Your task to perform on an android device: allow notifications from all sites in the chrome app Image 0: 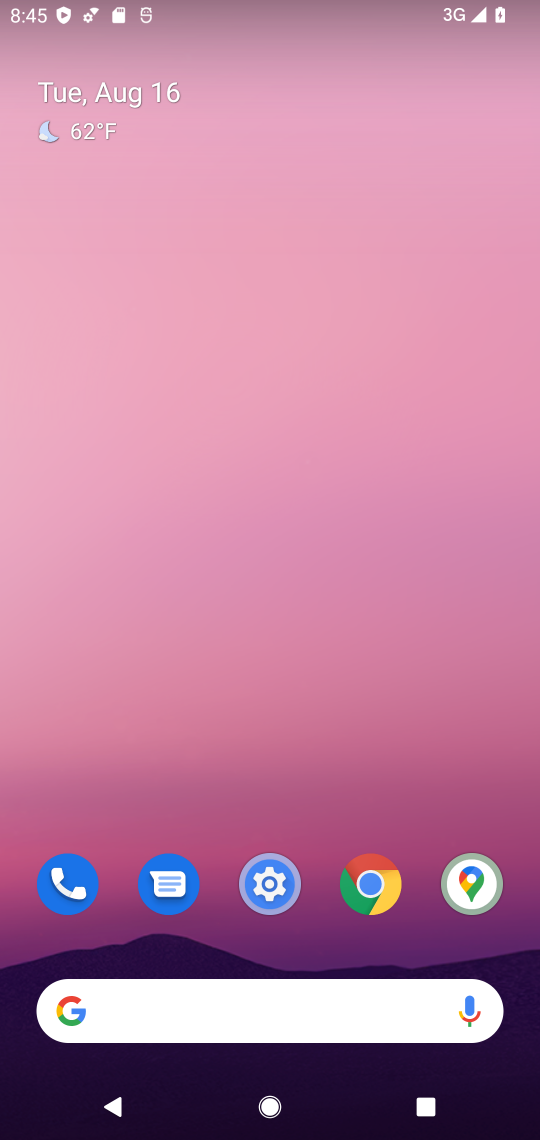
Step 0: click (365, 889)
Your task to perform on an android device: allow notifications from all sites in the chrome app Image 1: 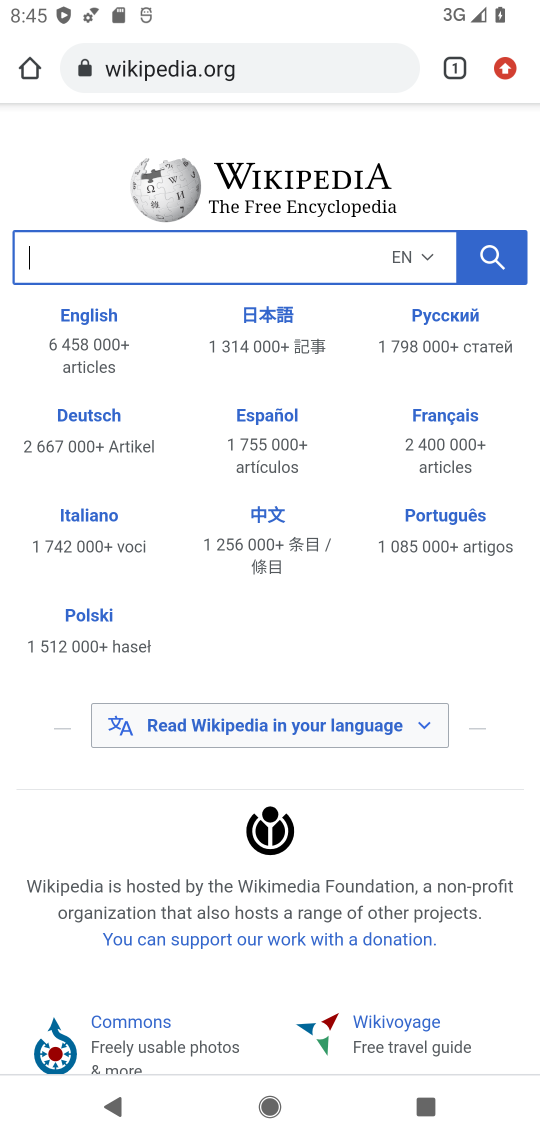
Step 1: click (495, 70)
Your task to perform on an android device: allow notifications from all sites in the chrome app Image 2: 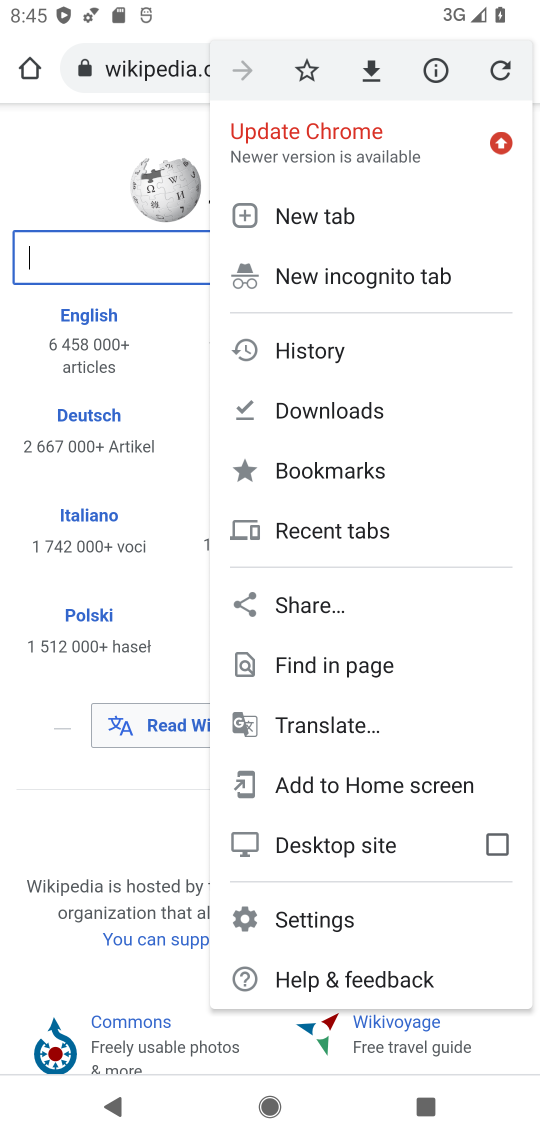
Step 2: click (320, 909)
Your task to perform on an android device: allow notifications from all sites in the chrome app Image 3: 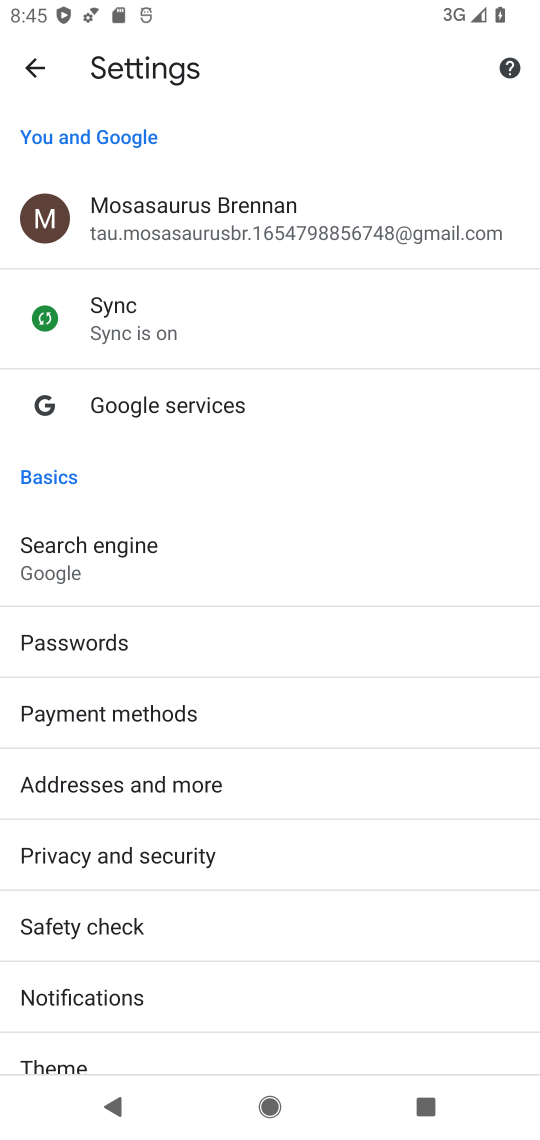
Step 3: drag from (256, 970) to (276, 471)
Your task to perform on an android device: allow notifications from all sites in the chrome app Image 4: 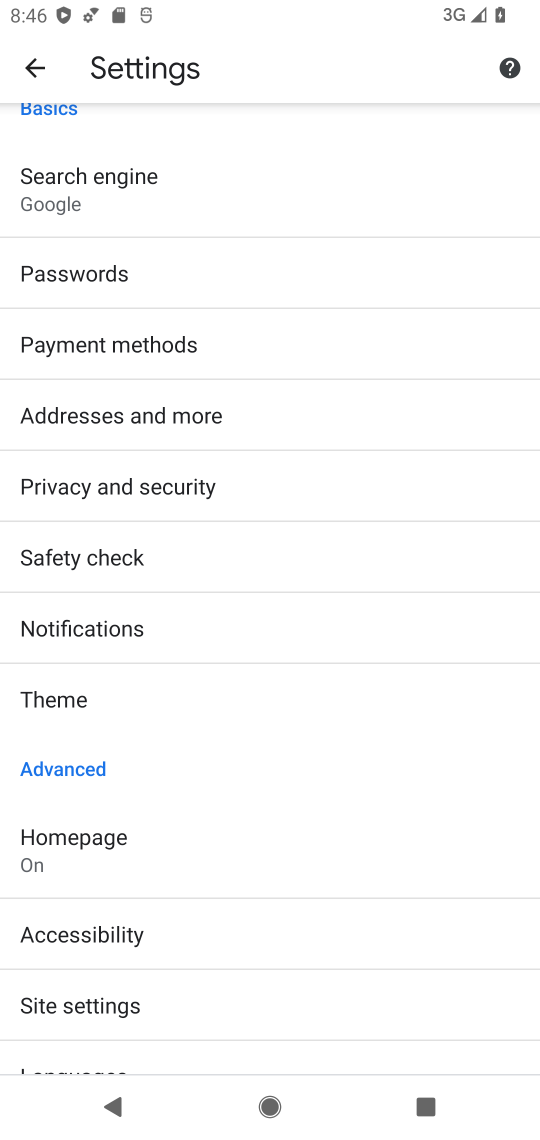
Step 4: drag from (205, 985) to (203, 555)
Your task to perform on an android device: allow notifications from all sites in the chrome app Image 5: 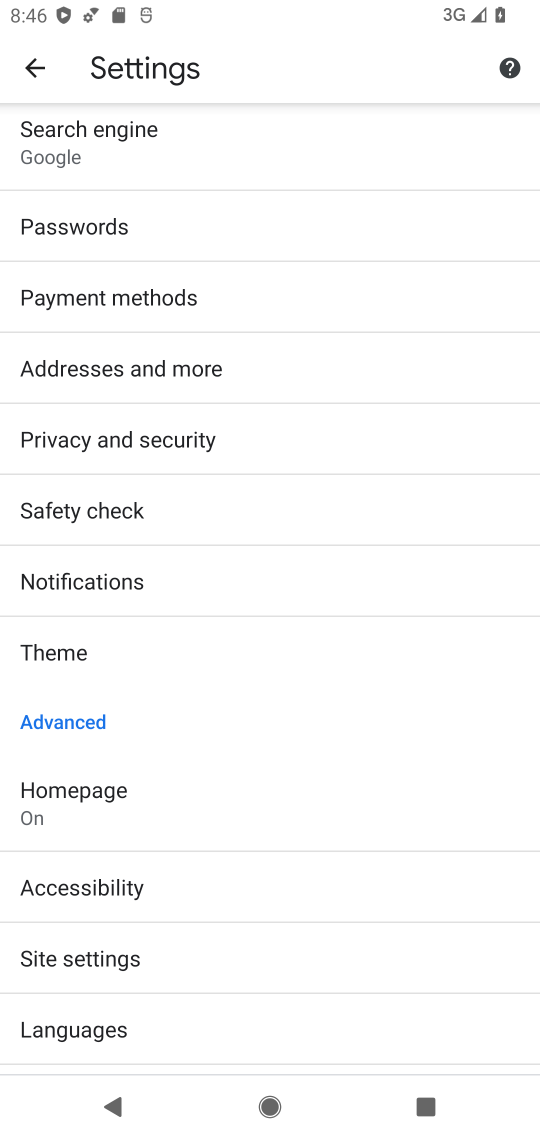
Step 5: click (79, 952)
Your task to perform on an android device: allow notifications from all sites in the chrome app Image 6: 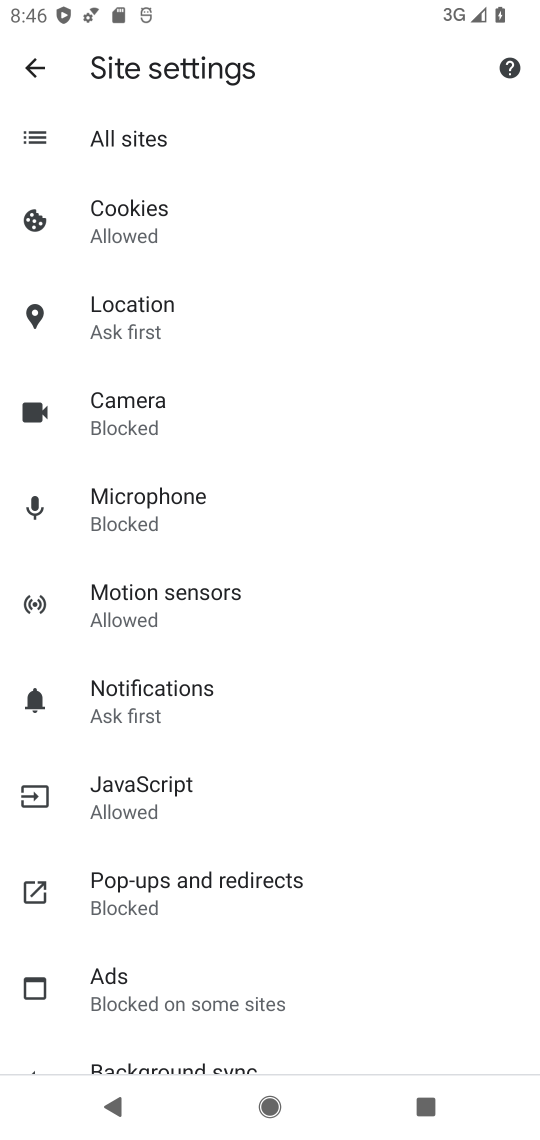
Step 6: click (160, 700)
Your task to perform on an android device: allow notifications from all sites in the chrome app Image 7: 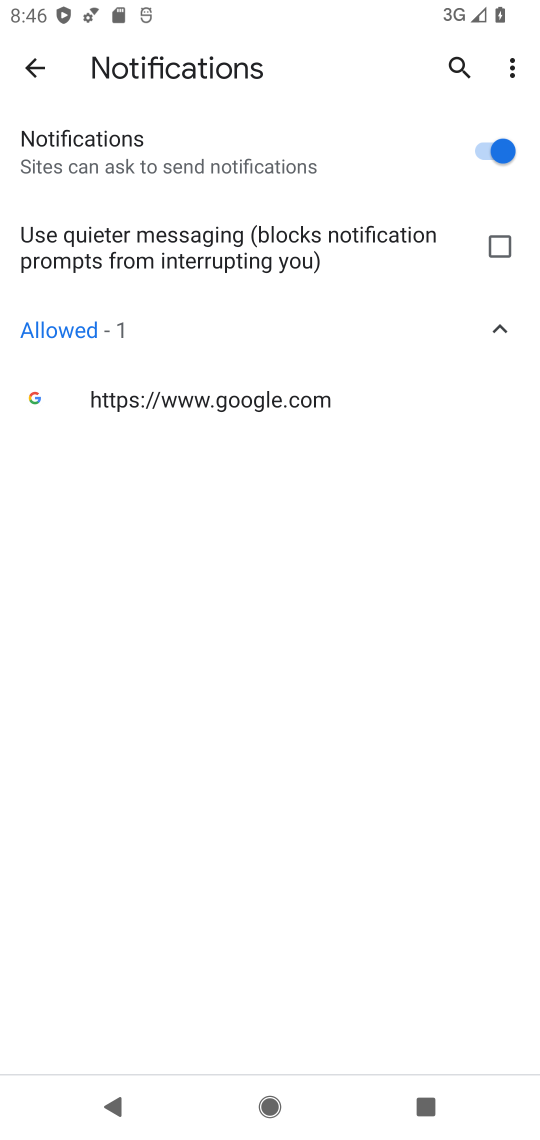
Step 7: task complete